Your task to perform on an android device: toggle priority inbox in the gmail app Image 0: 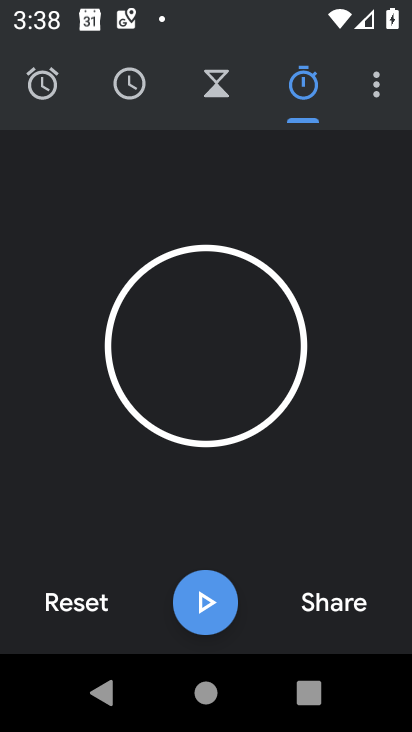
Step 0: press home button
Your task to perform on an android device: toggle priority inbox in the gmail app Image 1: 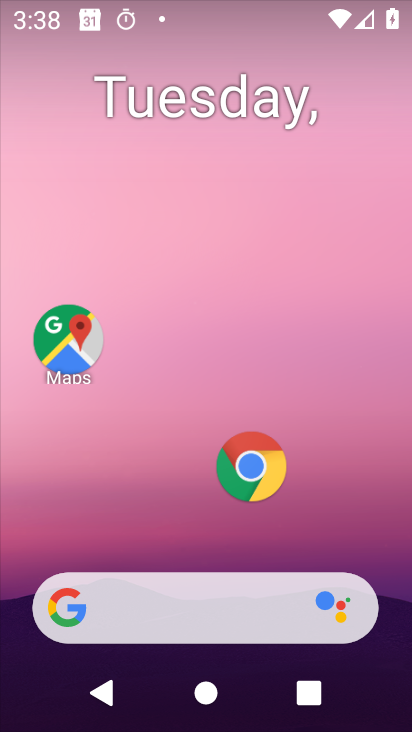
Step 1: drag from (153, 617) to (126, 60)
Your task to perform on an android device: toggle priority inbox in the gmail app Image 2: 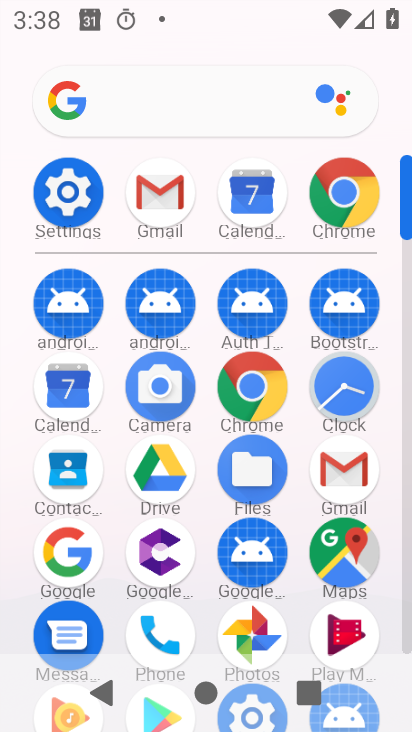
Step 2: click (150, 206)
Your task to perform on an android device: toggle priority inbox in the gmail app Image 3: 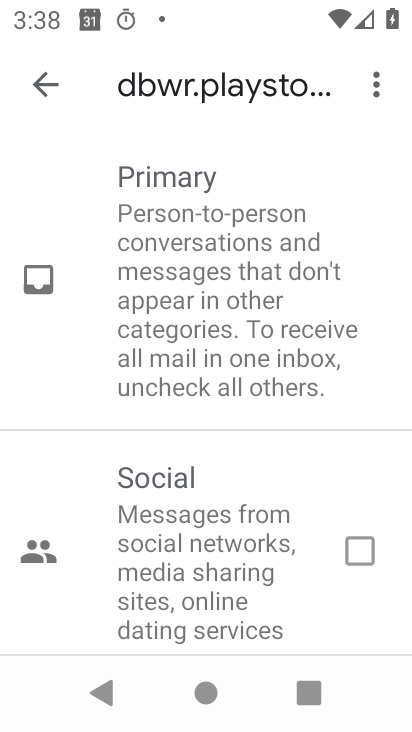
Step 3: click (34, 82)
Your task to perform on an android device: toggle priority inbox in the gmail app Image 4: 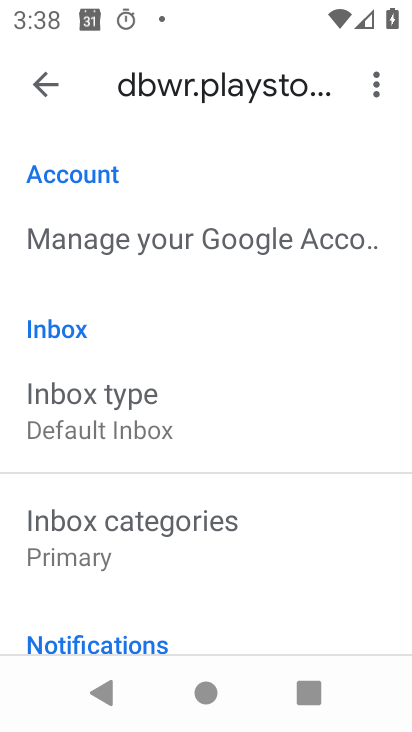
Step 4: click (158, 433)
Your task to perform on an android device: toggle priority inbox in the gmail app Image 5: 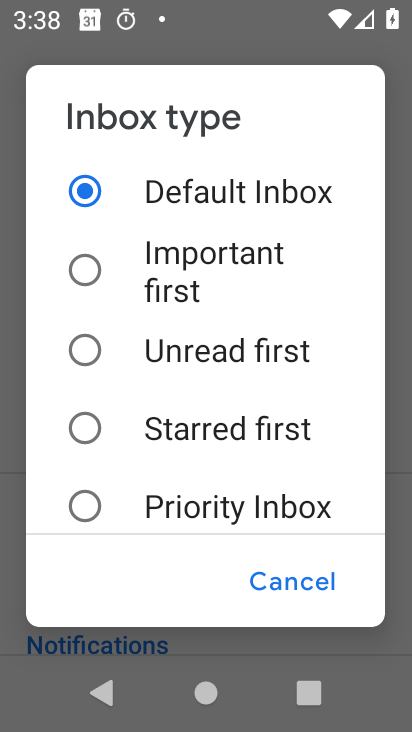
Step 5: click (251, 513)
Your task to perform on an android device: toggle priority inbox in the gmail app Image 6: 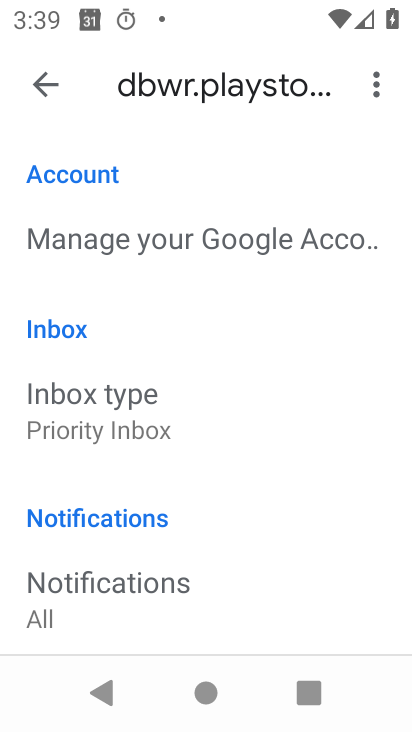
Step 6: task complete